Your task to perform on an android device: Set the phone to "Do not disturb". Image 0: 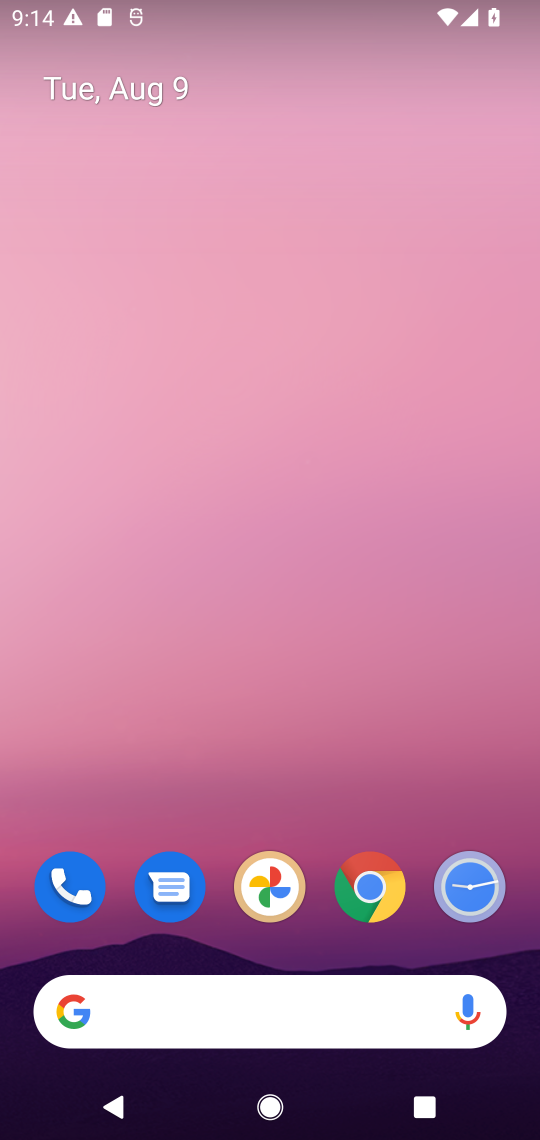
Step 0: drag from (247, 781) to (247, 229)
Your task to perform on an android device: Set the phone to "Do not disturb". Image 1: 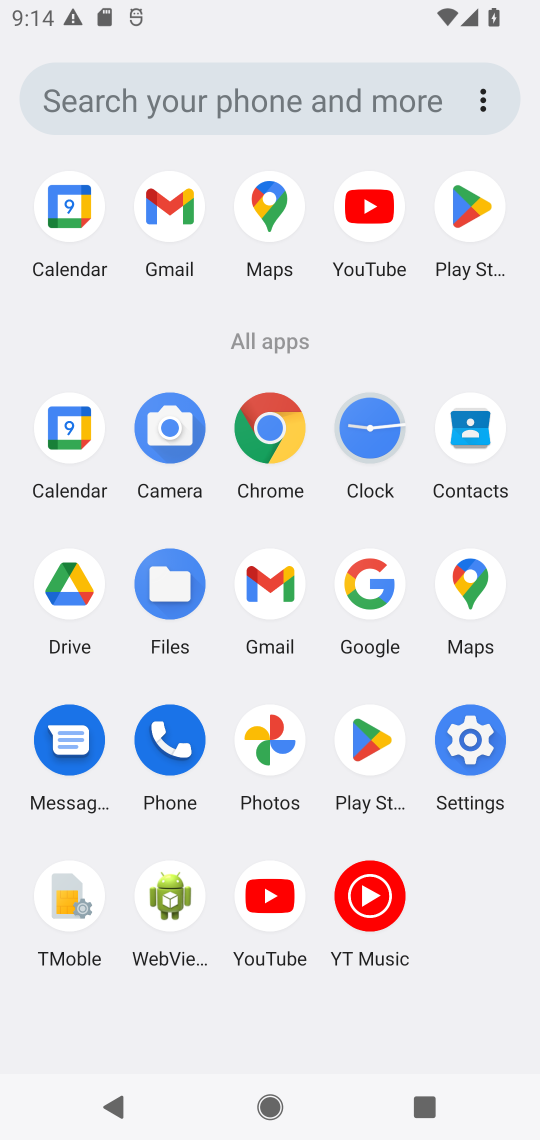
Step 1: click (449, 739)
Your task to perform on an android device: Set the phone to "Do not disturb". Image 2: 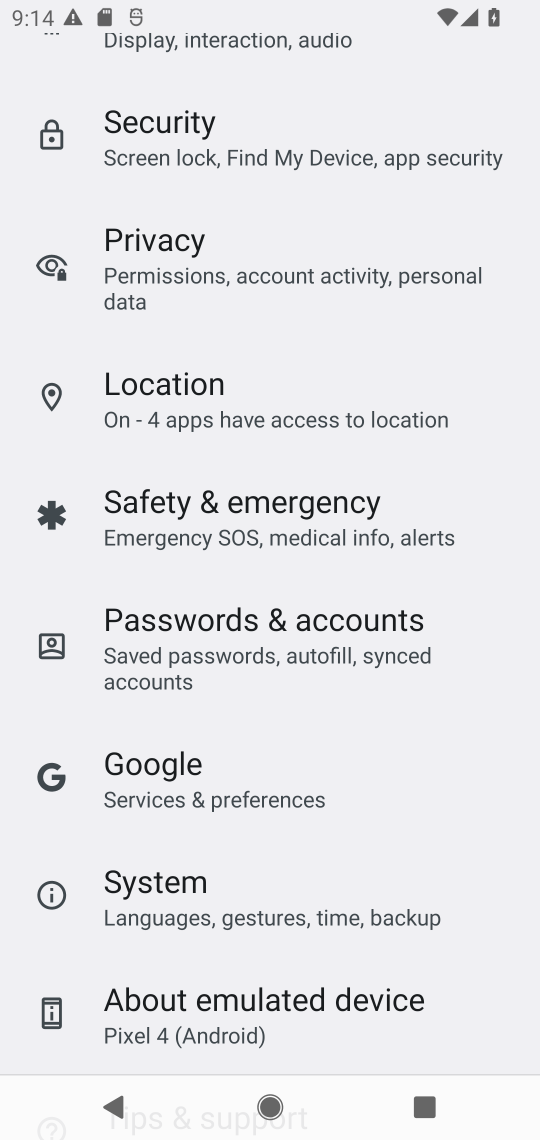
Step 2: drag from (267, 361) to (293, 840)
Your task to perform on an android device: Set the phone to "Do not disturb". Image 3: 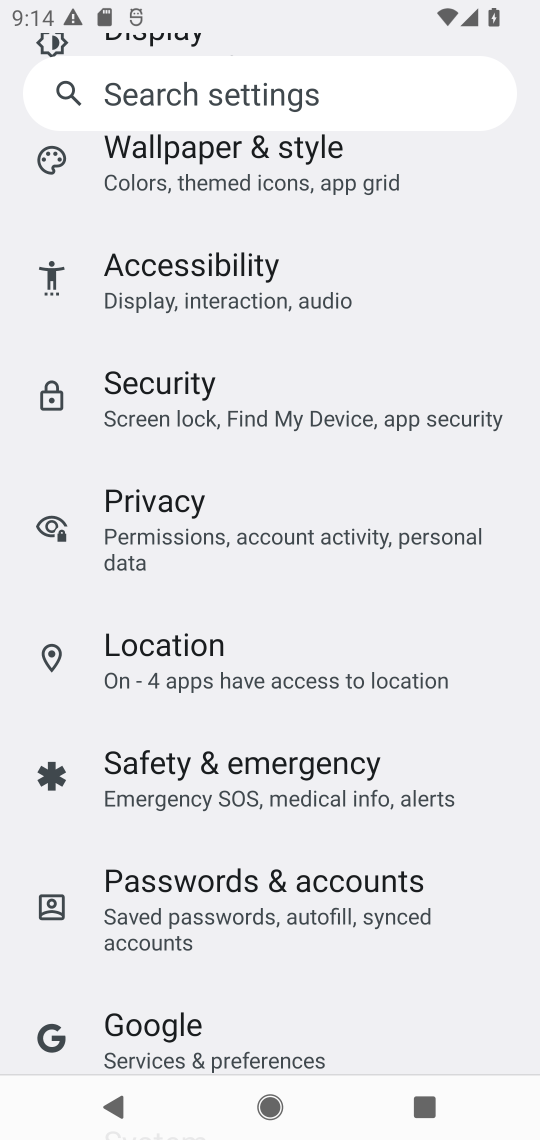
Step 3: drag from (226, 354) to (287, 832)
Your task to perform on an android device: Set the phone to "Do not disturb". Image 4: 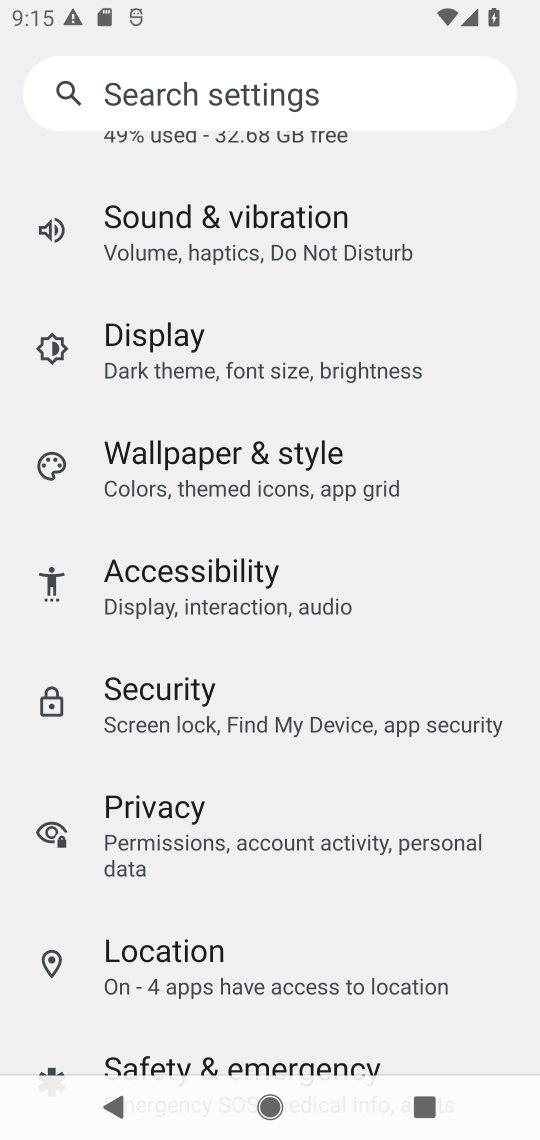
Step 4: click (356, 239)
Your task to perform on an android device: Set the phone to "Do not disturb". Image 5: 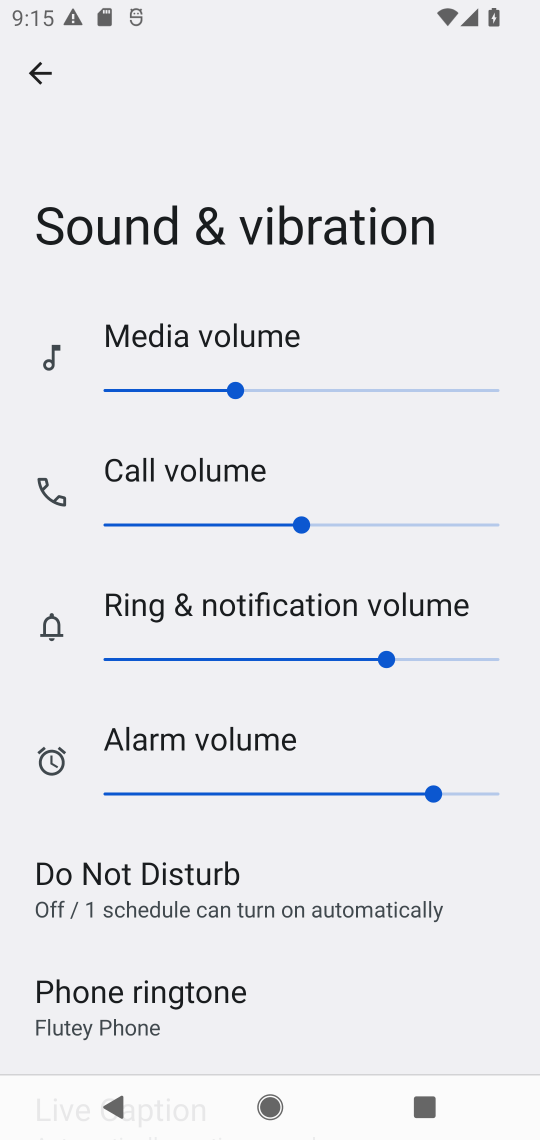
Step 5: click (231, 907)
Your task to perform on an android device: Set the phone to "Do not disturb". Image 6: 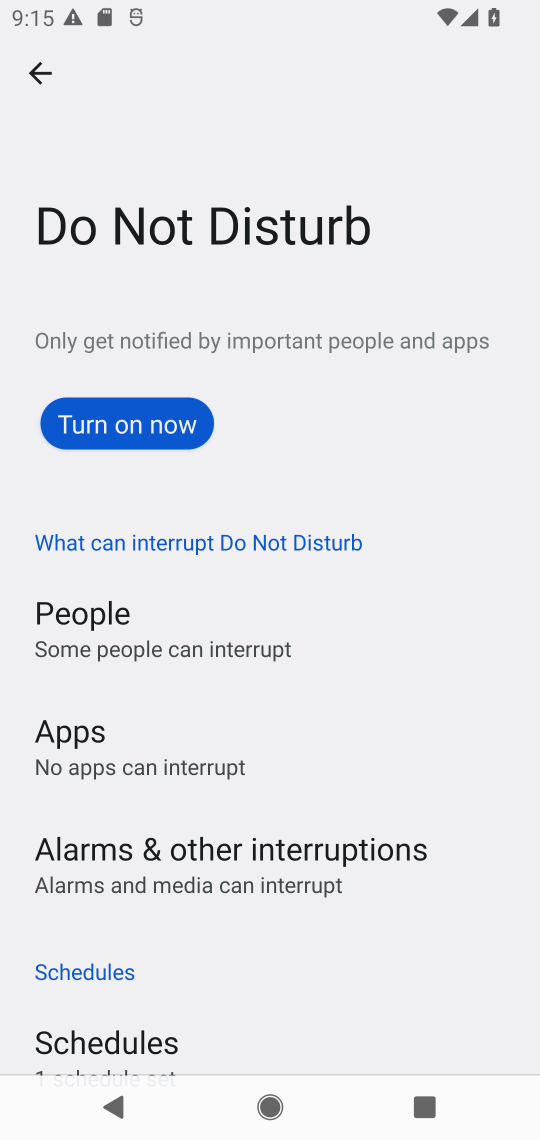
Step 6: click (155, 423)
Your task to perform on an android device: Set the phone to "Do not disturb". Image 7: 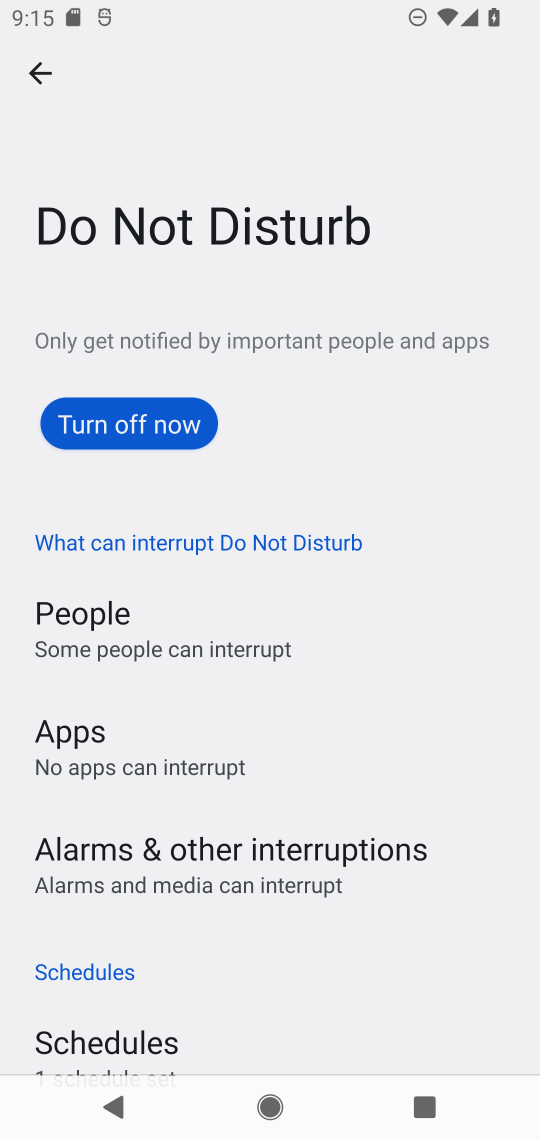
Step 7: task complete